Your task to perform on an android device: Open battery settings Image 0: 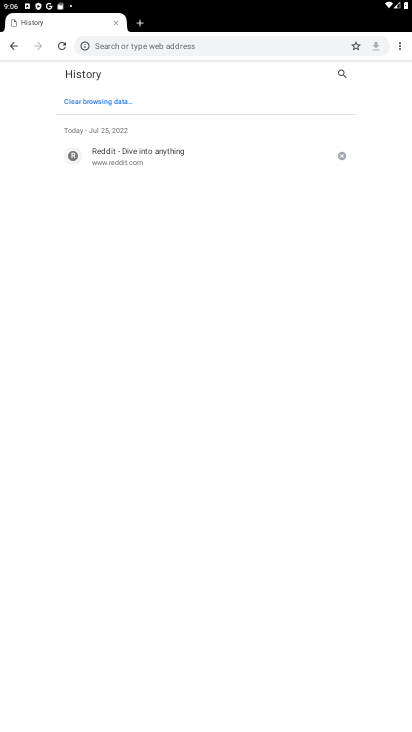
Step 0: press home button
Your task to perform on an android device: Open battery settings Image 1: 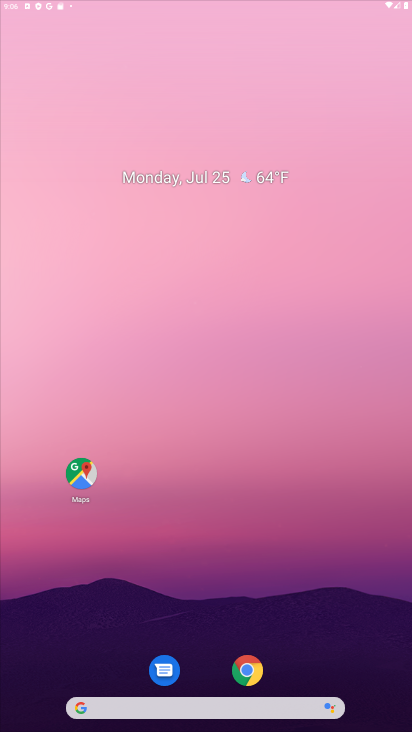
Step 1: drag from (373, 666) to (182, 54)
Your task to perform on an android device: Open battery settings Image 2: 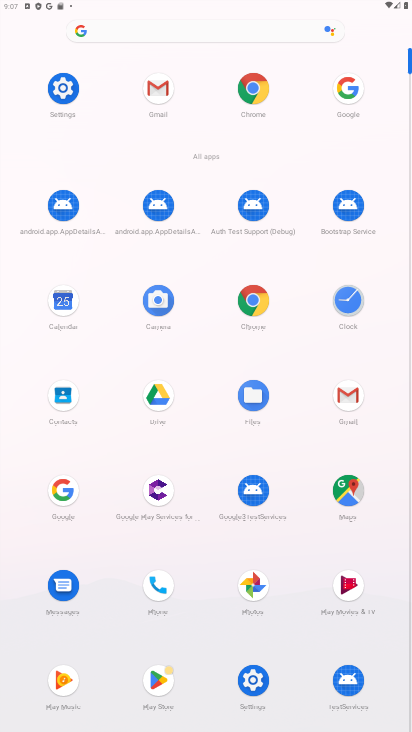
Step 2: click (256, 681)
Your task to perform on an android device: Open battery settings Image 3: 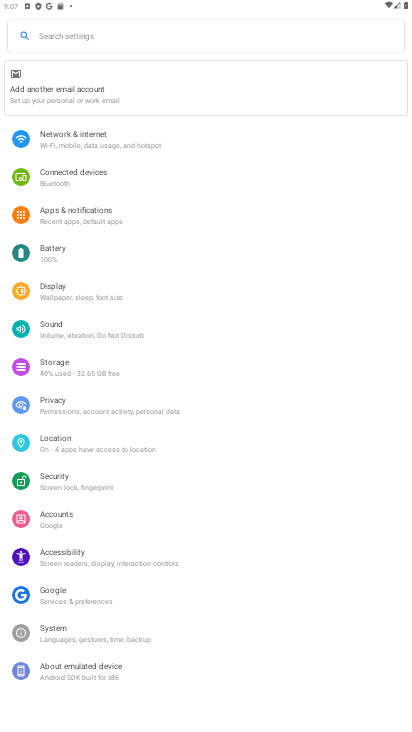
Step 3: click (104, 261)
Your task to perform on an android device: Open battery settings Image 4: 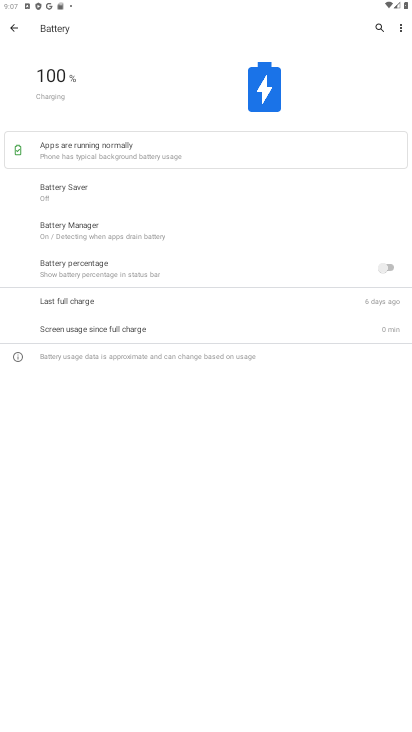
Step 4: task complete